Your task to perform on an android device: Open calendar and show me the fourth week of next month Image 0: 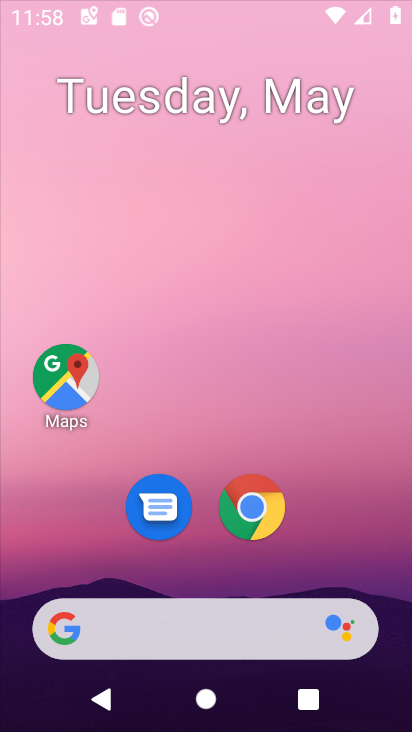
Step 0: press back button
Your task to perform on an android device: Open calendar and show me the fourth week of next month Image 1: 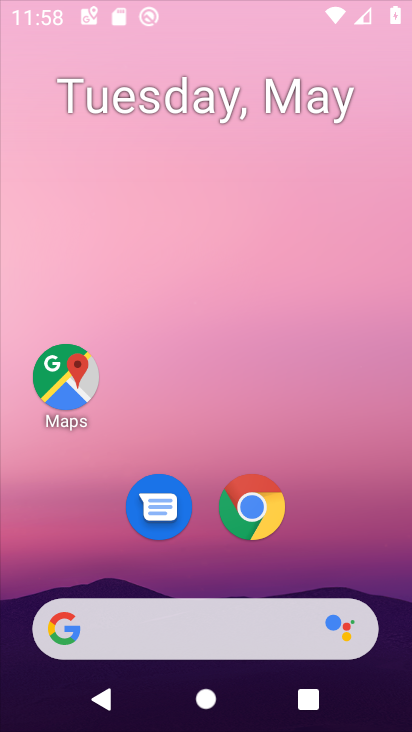
Step 1: click (269, 70)
Your task to perform on an android device: Open calendar and show me the fourth week of next month Image 2: 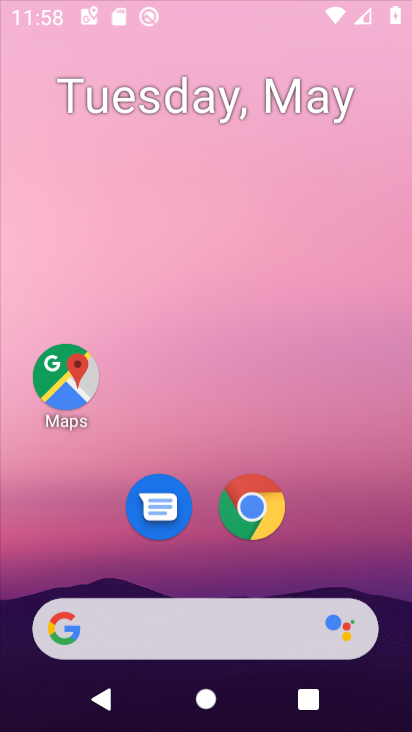
Step 2: drag from (241, 394) to (214, 87)
Your task to perform on an android device: Open calendar and show me the fourth week of next month Image 3: 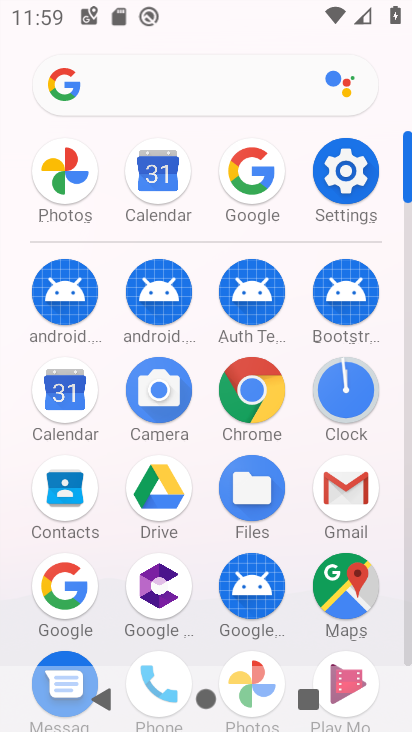
Step 3: click (56, 399)
Your task to perform on an android device: Open calendar and show me the fourth week of next month Image 4: 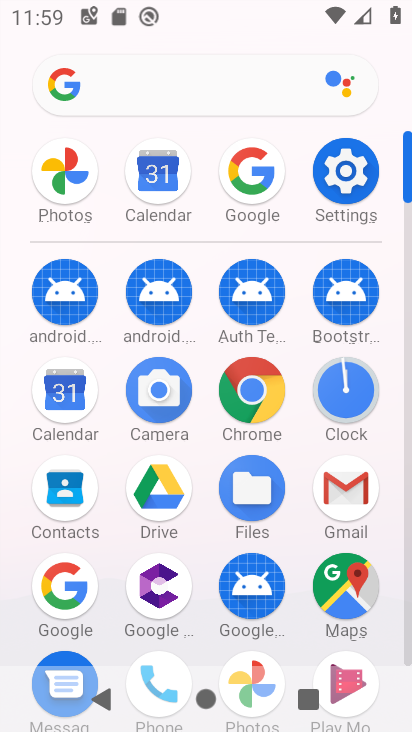
Step 4: click (56, 399)
Your task to perform on an android device: Open calendar and show me the fourth week of next month Image 5: 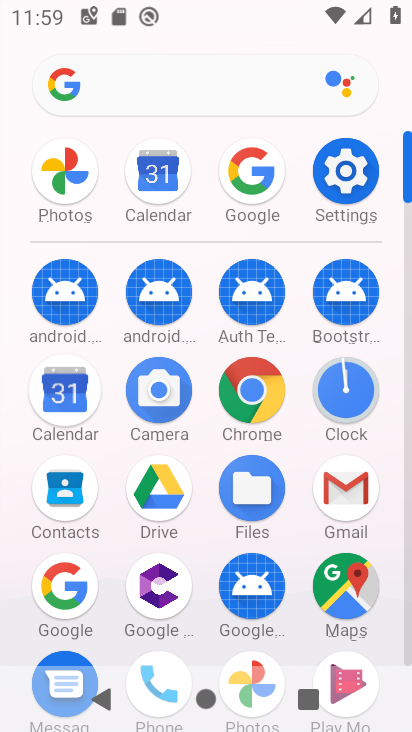
Step 5: click (55, 398)
Your task to perform on an android device: Open calendar and show me the fourth week of next month Image 6: 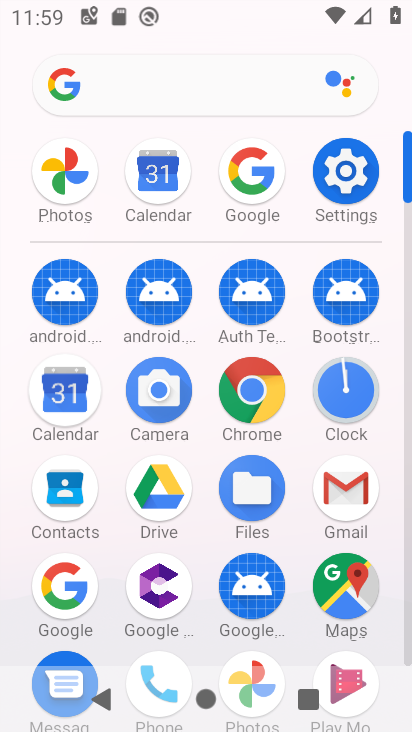
Step 6: click (55, 398)
Your task to perform on an android device: Open calendar and show me the fourth week of next month Image 7: 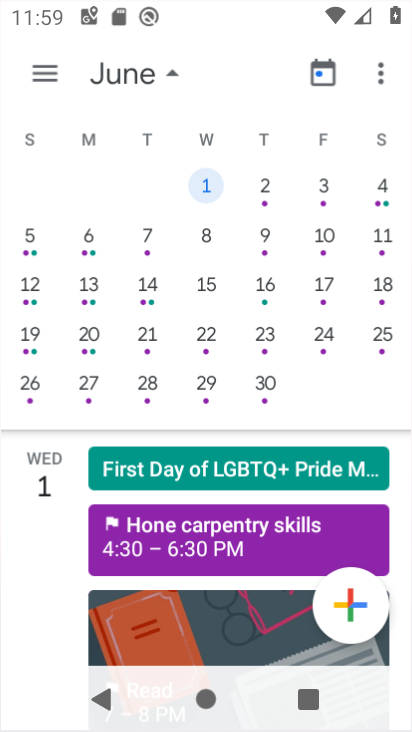
Step 7: click (74, 387)
Your task to perform on an android device: Open calendar and show me the fourth week of next month Image 8: 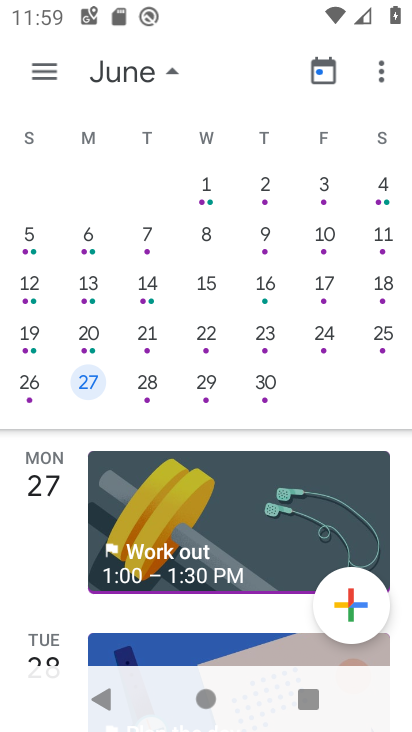
Step 8: click (206, 286)
Your task to perform on an android device: Open calendar and show me the fourth week of next month Image 9: 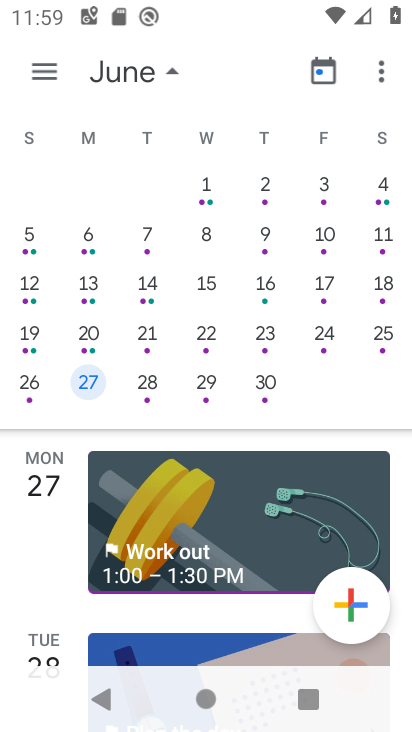
Step 9: click (206, 284)
Your task to perform on an android device: Open calendar and show me the fourth week of next month Image 10: 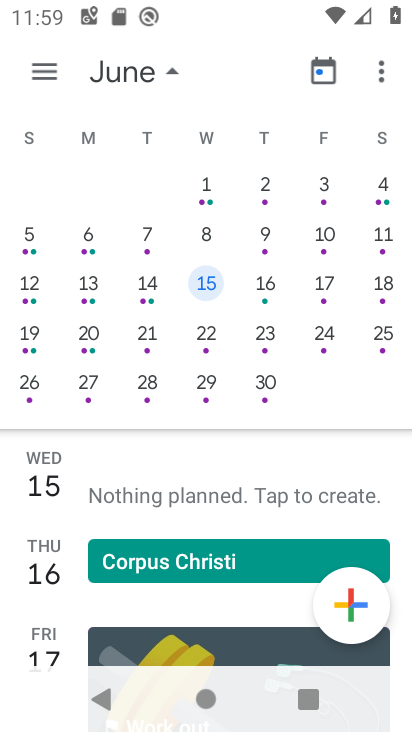
Step 10: click (206, 284)
Your task to perform on an android device: Open calendar and show me the fourth week of next month Image 11: 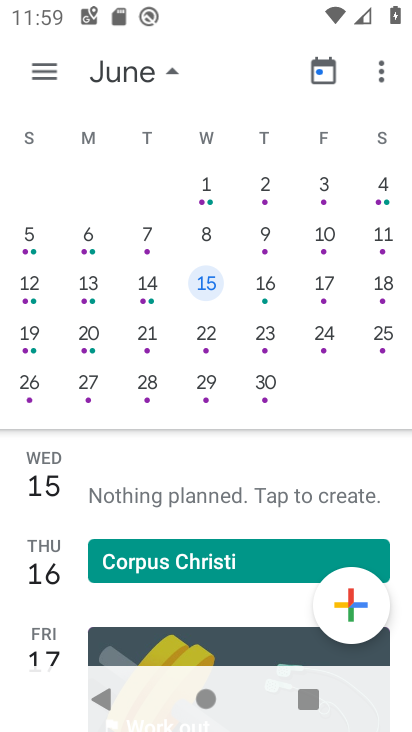
Step 11: task complete